Your task to perform on an android device: change notification settings in the gmail app Image 0: 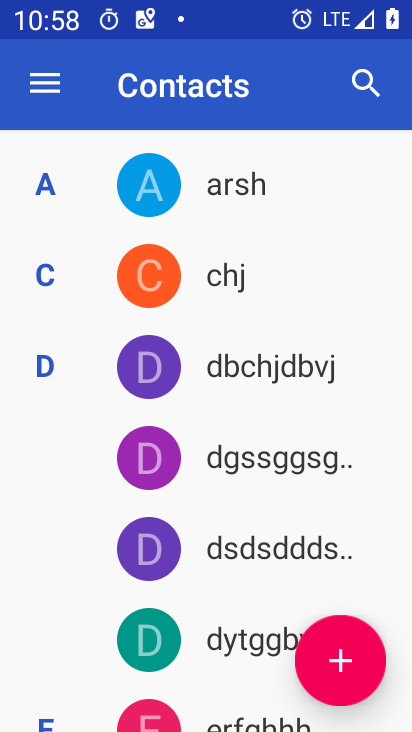
Step 0: drag from (212, 579) to (128, 282)
Your task to perform on an android device: change notification settings in the gmail app Image 1: 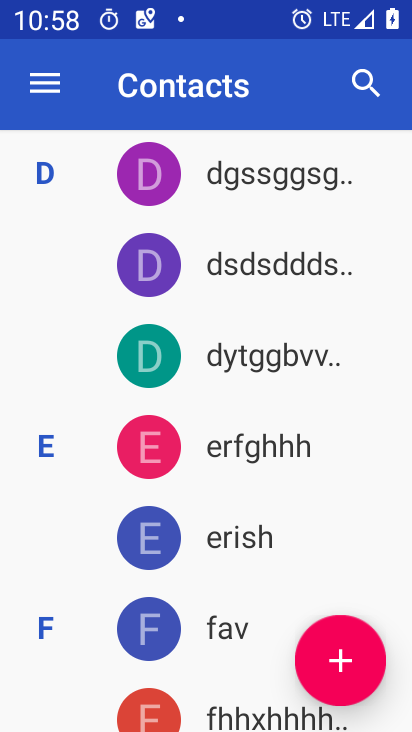
Step 1: press home button
Your task to perform on an android device: change notification settings in the gmail app Image 2: 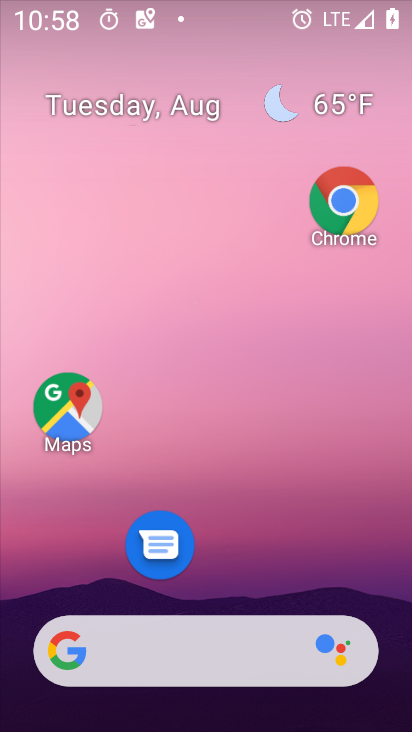
Step 2: drag from (194, 640) to (409, 371)
Your task to perform on an android device: change notification settings in the gmail app Image 3: 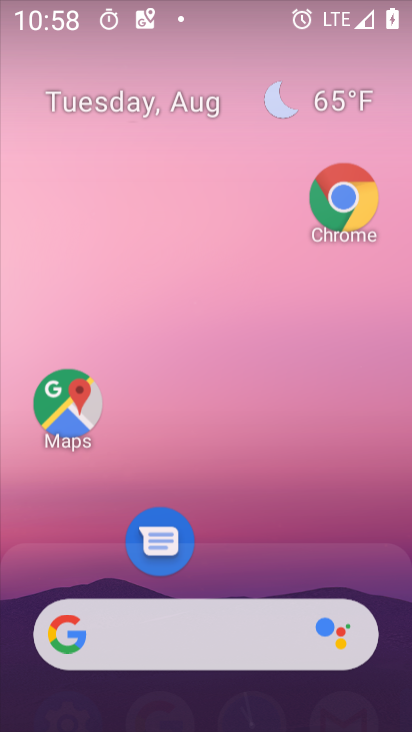
Step 3: drag from (208, 506) to (214, 76)
Your task to perform on an android device: change notification settings in the gmail app Image 4: 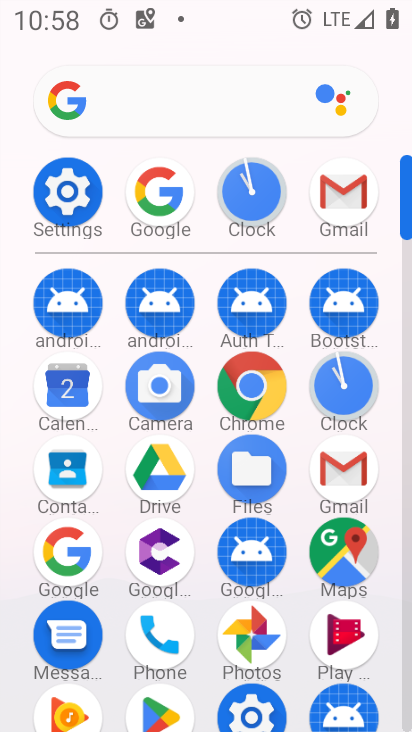
Step 4: drag from (207, 534) to (225, 163)
Your task to perform on an android device: change notification settings in the gmail app Image 5: 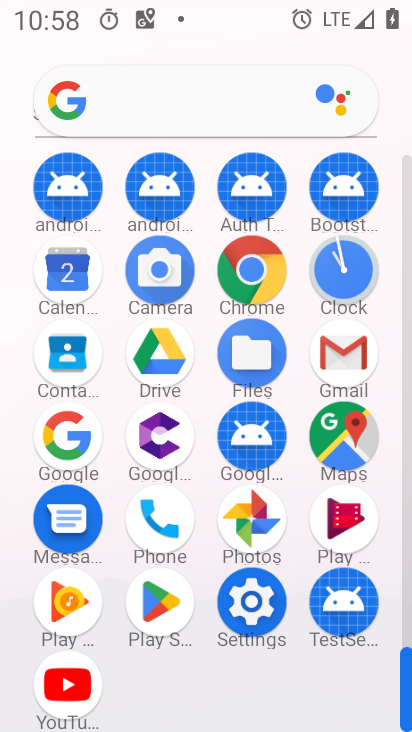
Step 5: click (339, 378)
Your task to perform on an android device: change notification settings in the gmail app Image 6: 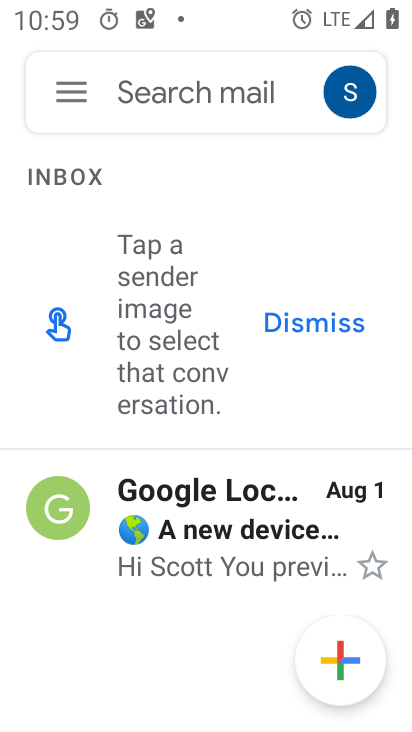
Step 6: click (64, 95)
Your task to perform on an android device: change notification settings in the gmail app Image 7: 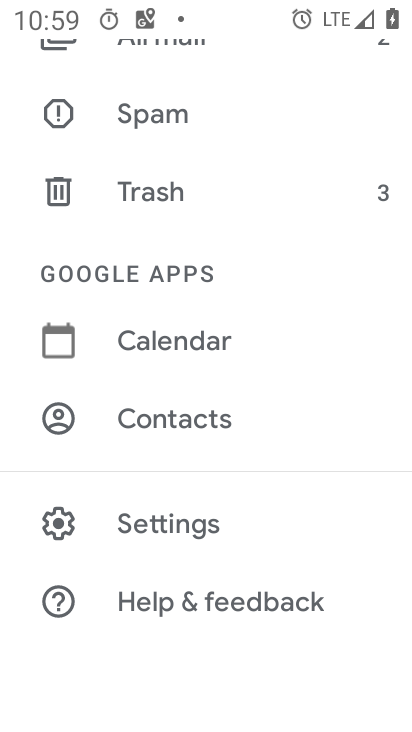
Step 7: drag from (214, 278) to (281, 49)
Your task to perform on an android device: change notification settings in the gmail app Image 8: 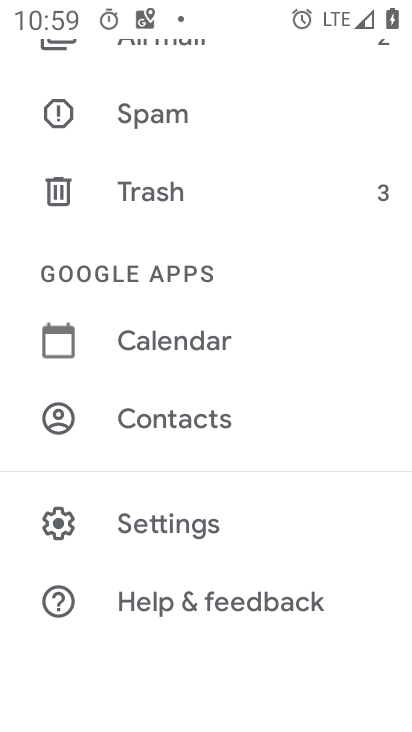
Step 8: click (172, 534)
Your task to perform on an android device: change notification settings in the gmail app Image 9: 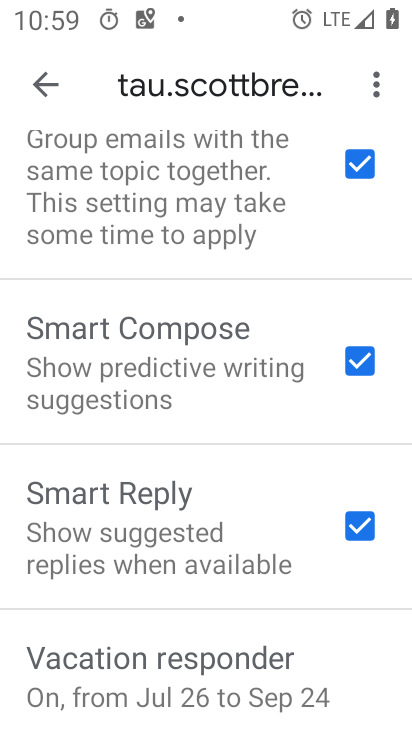
Step 9: click (34, 91)
Your task to perform on an android device: change notification settings in the gmail app Image 10: 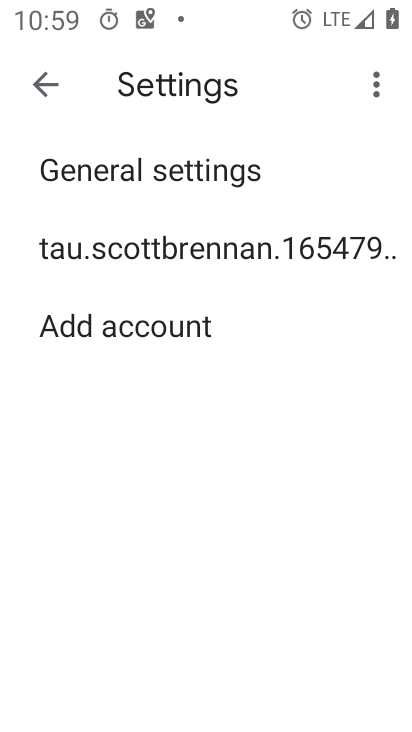
Step 10: click (161, 175)
Your task to perform on an android device: change notification settings in the gmail app Image 11: 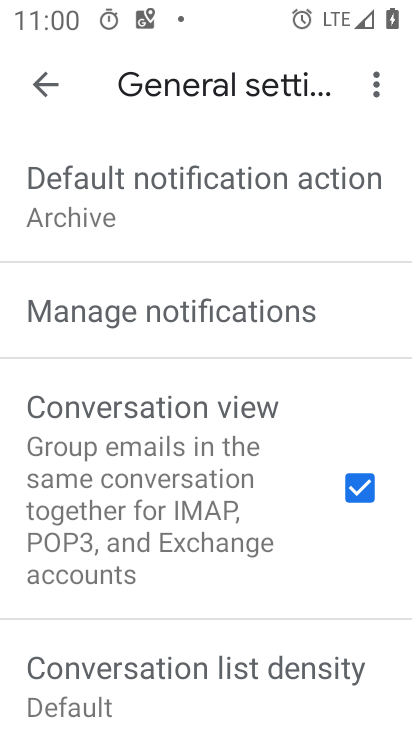
Step 11: click (140, 316)
Your task to perform on an android device: change notification settings in the gmail app Image 12: 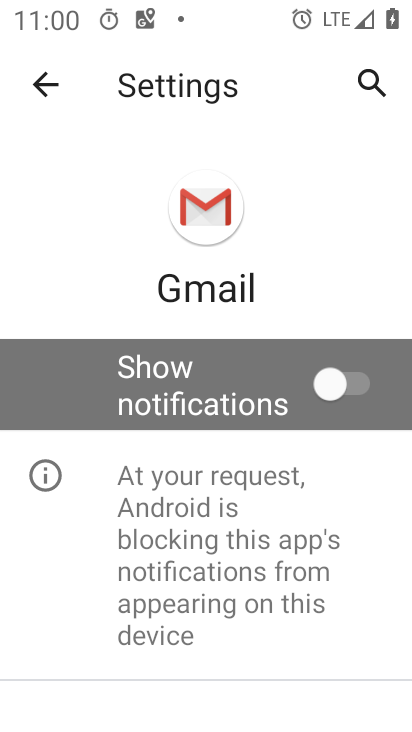
Step 12: click (238, 395)
Your task to perform on an android device: change notification settings in the gmail app Image 13: 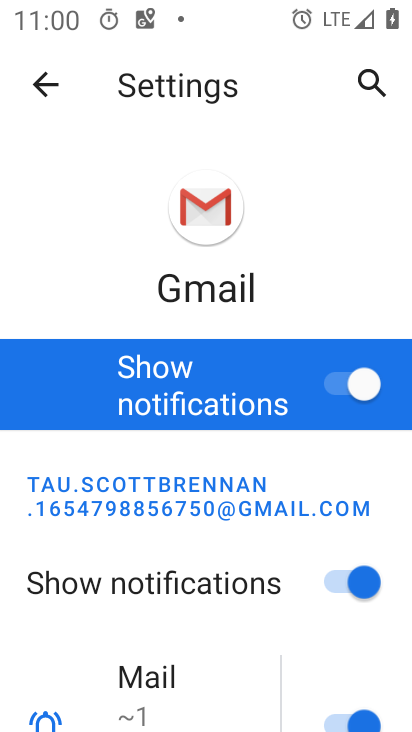
Step 13: task complete